Your task to perform on an android device: find which apps use the phone's location Image 0: 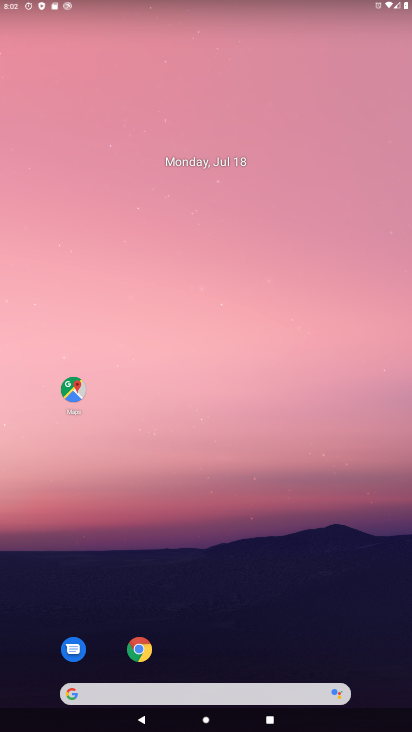
Step 0: drag from (334, 593) to (305, 33)
Your task to perform on an android device: find which apps use the phone's location Image 1: 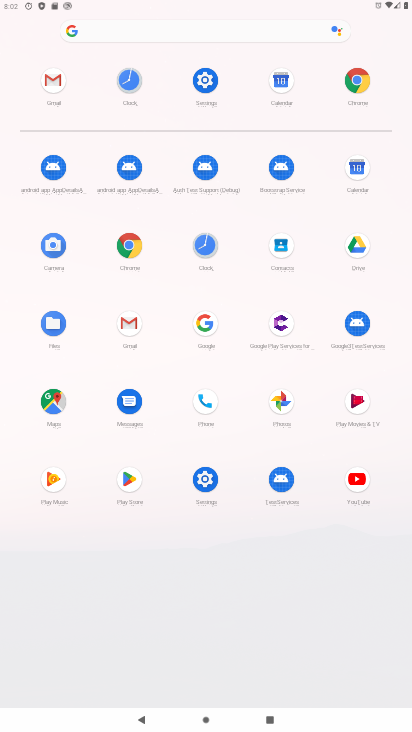
Step 1: click (200, 79)
Your task to perform on an android device: find which apps use the phone's location Image 2: 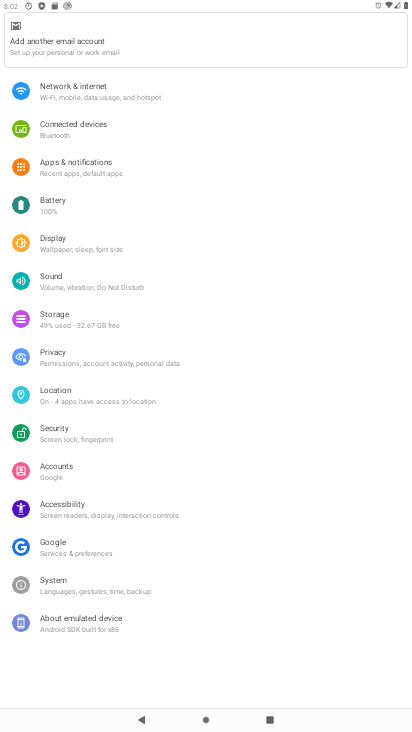
Step 2: click (98, 406)
Your task to perform on an android device: find which apps use the phone's location Image 3: 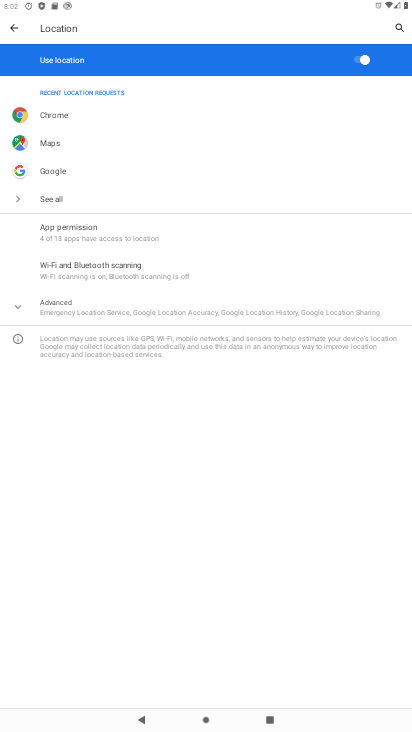
Step 3: click (60, 238)
Your task to perform on an android device: find which apps use the phone's location Image 4: 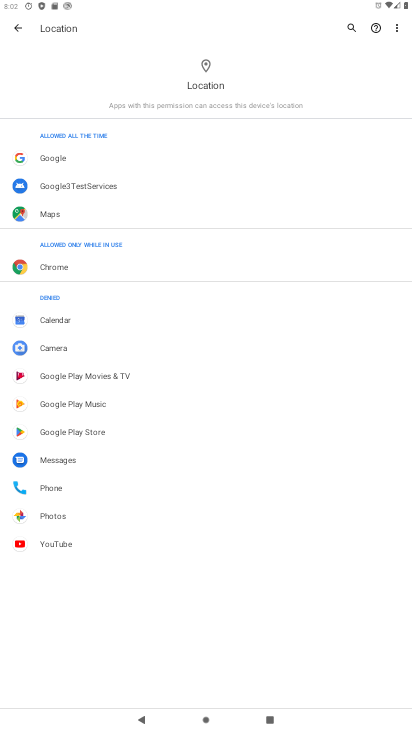
Step 4: task complete